Your task to perform on an android device: Open location settings Image 0: 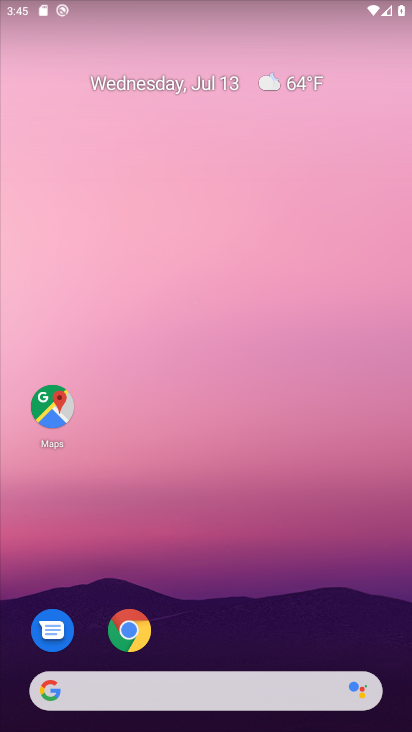
Step 0: drag from (167, 668) to (163, 230)
Your task to perform on an android device: Open location settings Image 1: 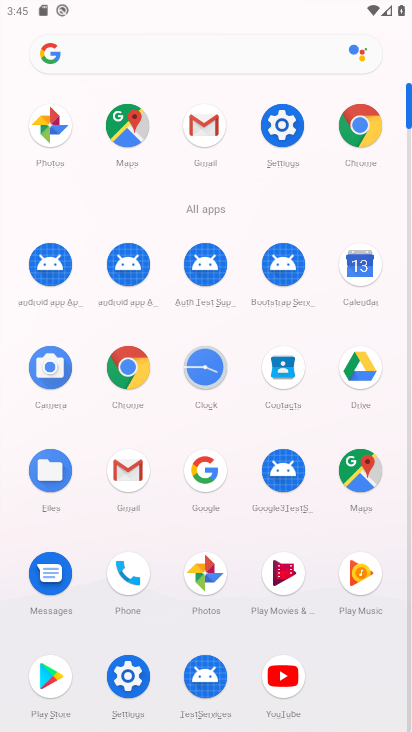
Step 1: click (289, 146)
Your task to perform on an android device: Open location settings Image 2: 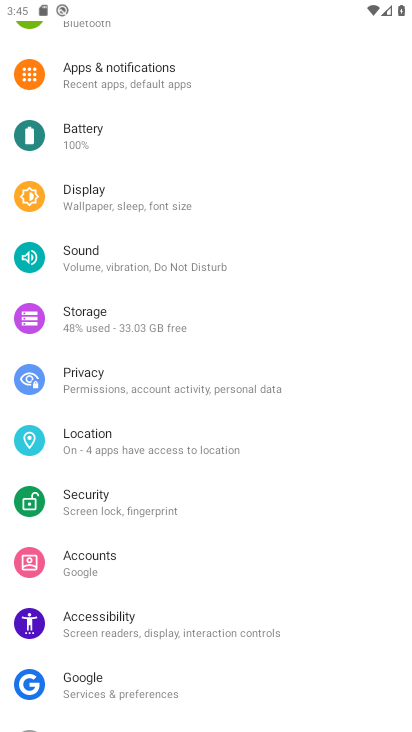
Step 2: click (111, 455)
Your task to perform on an android device: Open location settings Image 3: 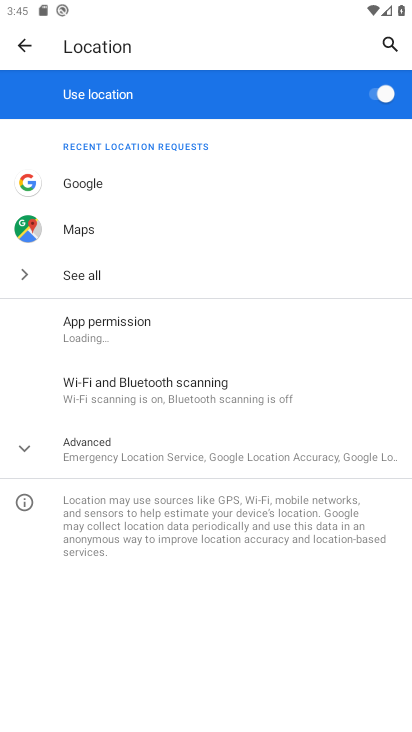
Step 3: task complete